Your task to perform on an android device: Open sound settings Image 0: 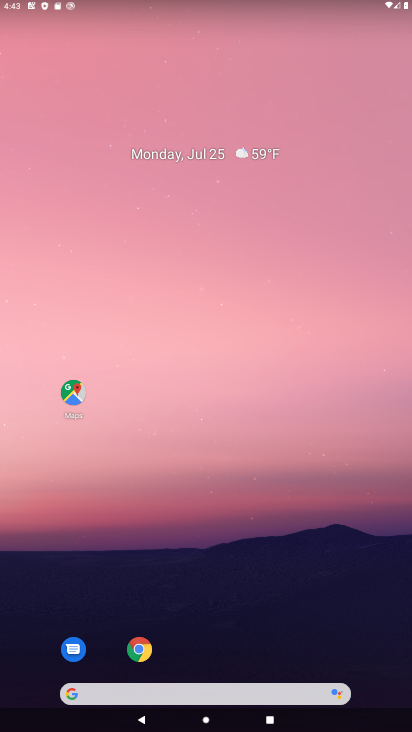
Step 0: drag from (297, 628) to (299, 0)
Your task to perform on an android device: Open sound settings Image 1: 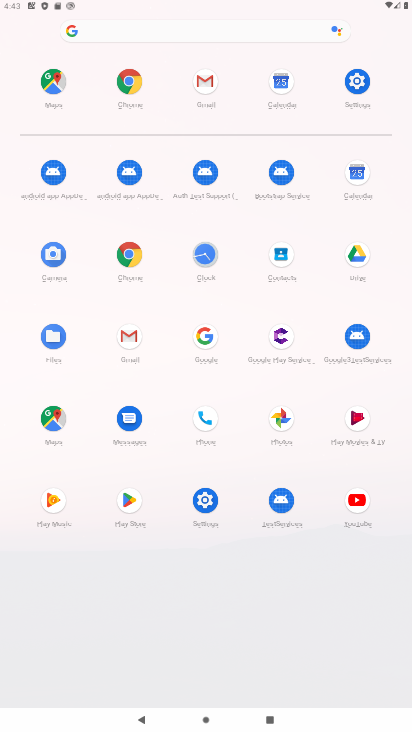
Step 1: click (353, 93)
Your task to perform on an android device: Open sound settings Image 2: 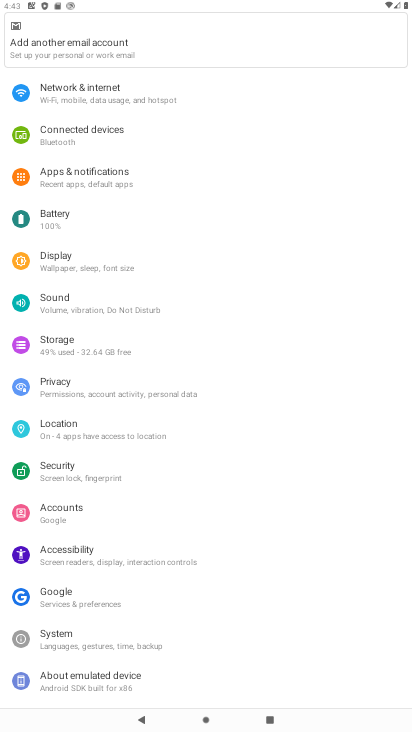
Step 2: click (70, 308)
Your task to perform on an android device: Open sound settings Image 3: 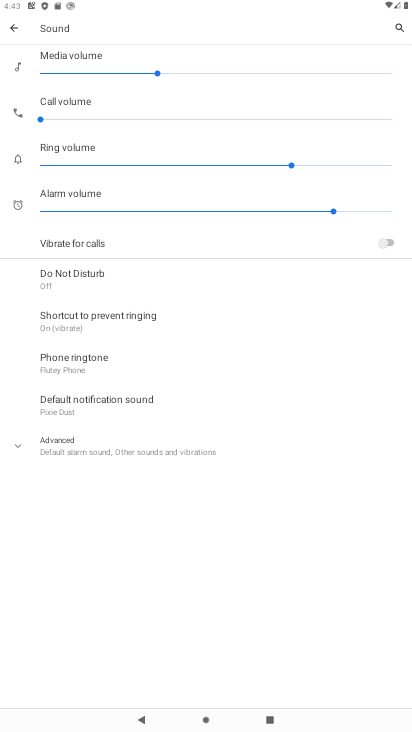
Step 3: task complete